Your task to perform on an android device: make emails show in primary in the gmail app Image 0: 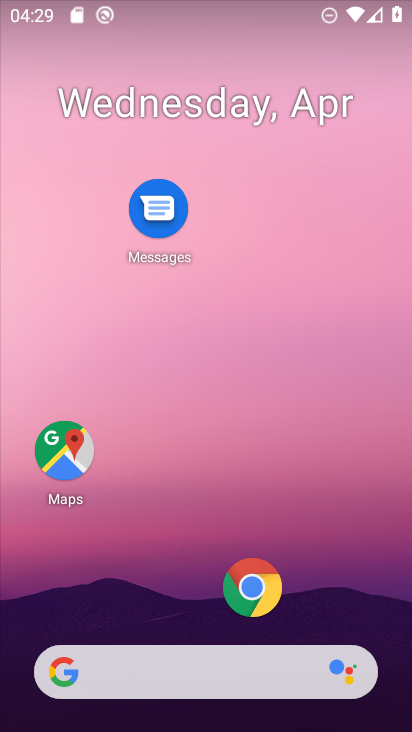
Step 0: drag from (183, 610) to (203, 180)
Your task to perform on an android device: make emails show in primary in the gmail app Image 1: 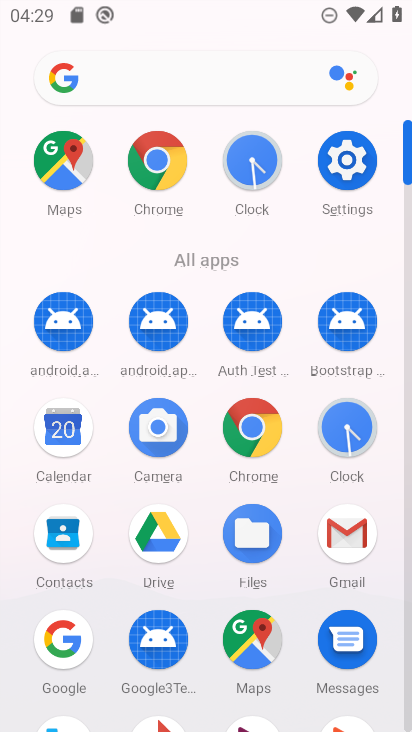
Step 1: click (343, 524)
Your task to perform on an android device: make emails show in primary in the gmail app Image 2: 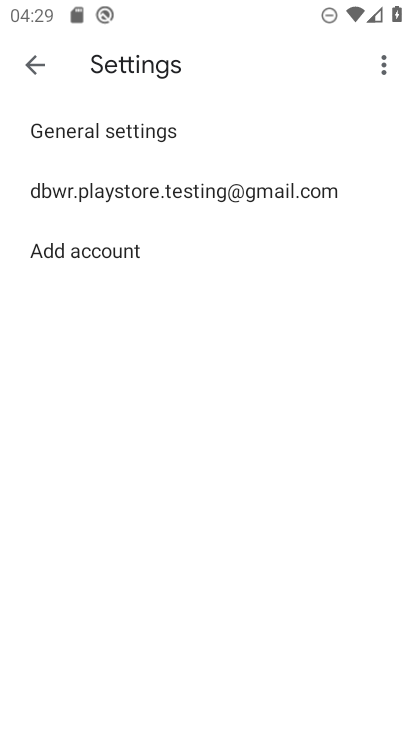
Step 2: click (210, 196)
Your task to perform on an android device: make emails show in primary in the gmail app Image 3: 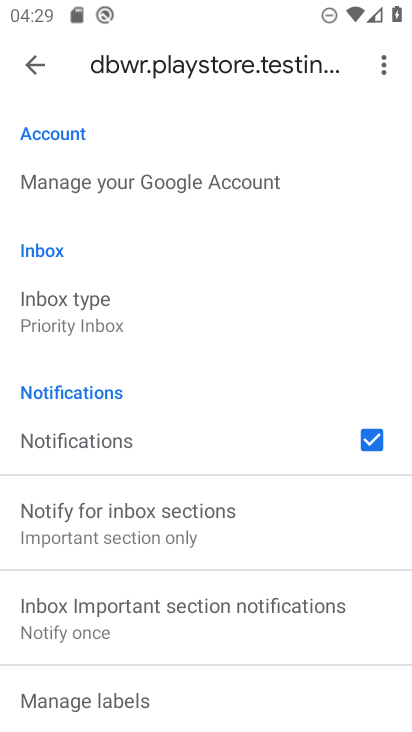
Step 3: drag from (177, 339) to (214, 235)
Your task to perform on an android device: make emails show in primary in the gmail app Image 4: 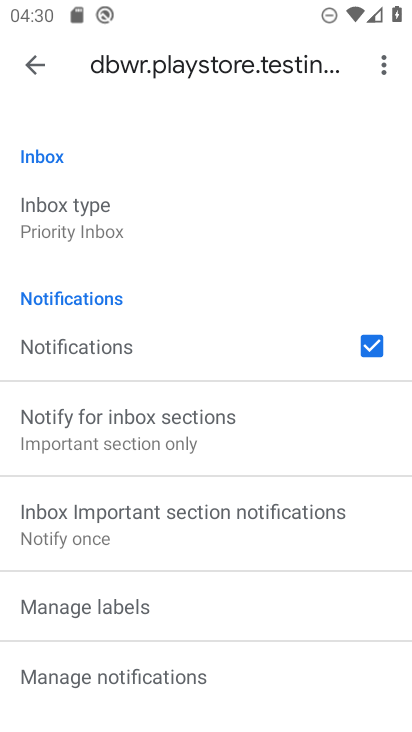
Step 4: drag from (257, 570) to (271, 263)
Your task to perform on an android device: make emails show in primary in the gmail app Image 5: 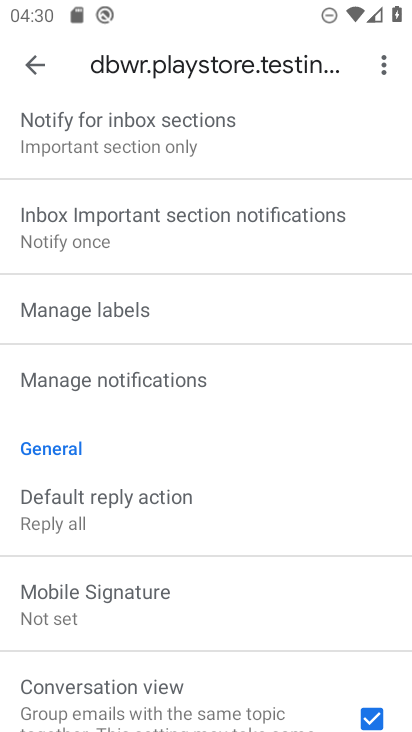
Step 5: drag from (252, 234) to (260, 458)
Your task to perform on an android device: make emails show in primary in the gmail app Image 6: 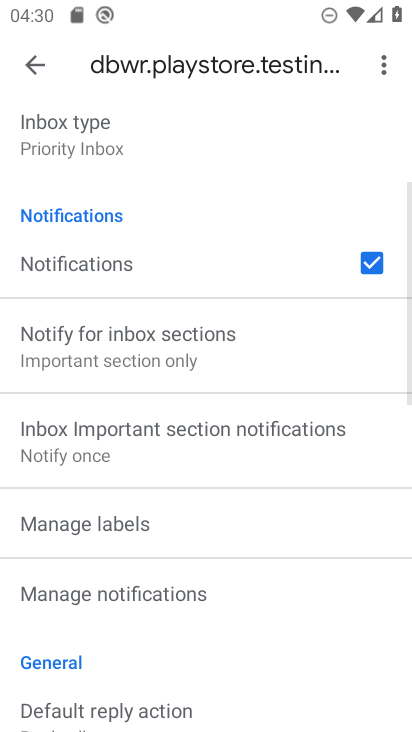
Step 6: drag from (229, 207) to (232, 400)
Your task to perform on an android device: make emails show in primary in the gmail app Image 7: 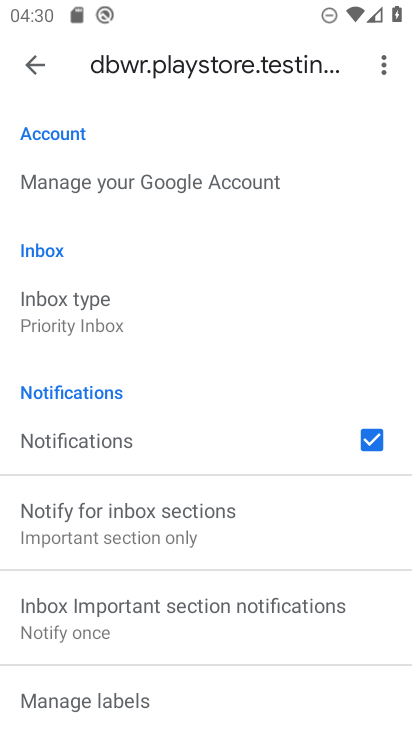
Step 7: click (108, 332)
Your task to perform on an android device: make emails show in primary in the gmail app Image 8: 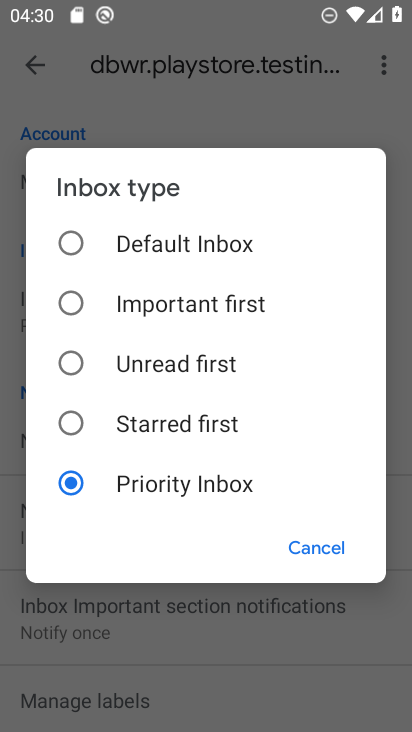
Step 8: click (131, 247)
Your task to perform on an android device: make emails show in primary in the gmail app Image 9: 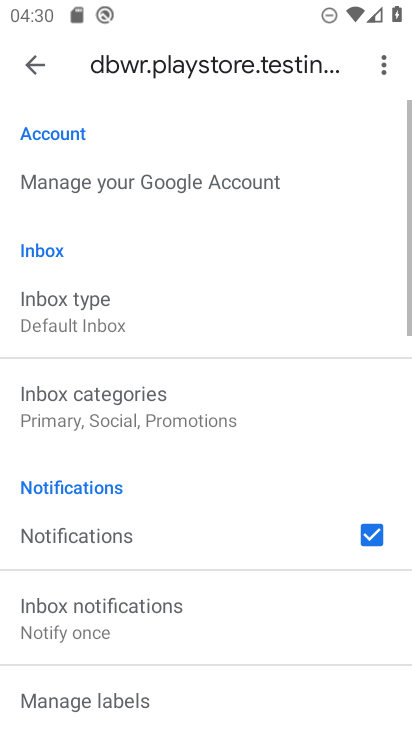
Step 9: click (90, 400)
Your task to perform on an android device: make emails show in primary in the gmail app Image 10: 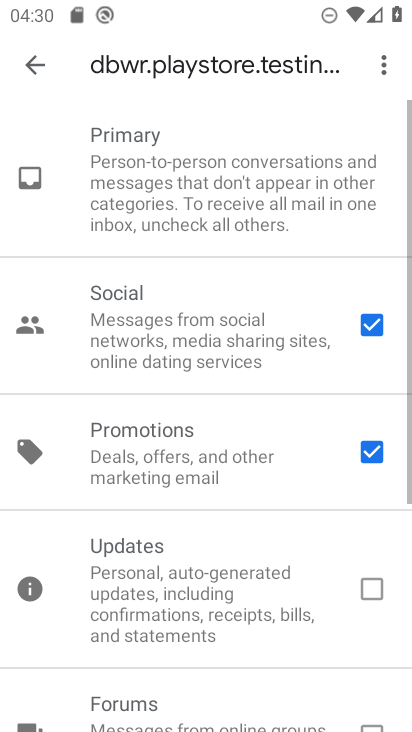
Step 10: click (147, 212)
Your task to perform on an android device: make emails show in primary in the gmail app Image 11: 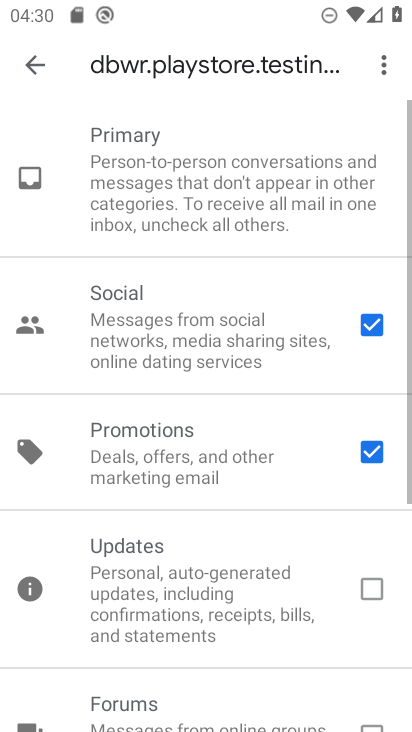
Step 11: task complete